Your task to perform on an android device: turn on sleep mode Image 0: 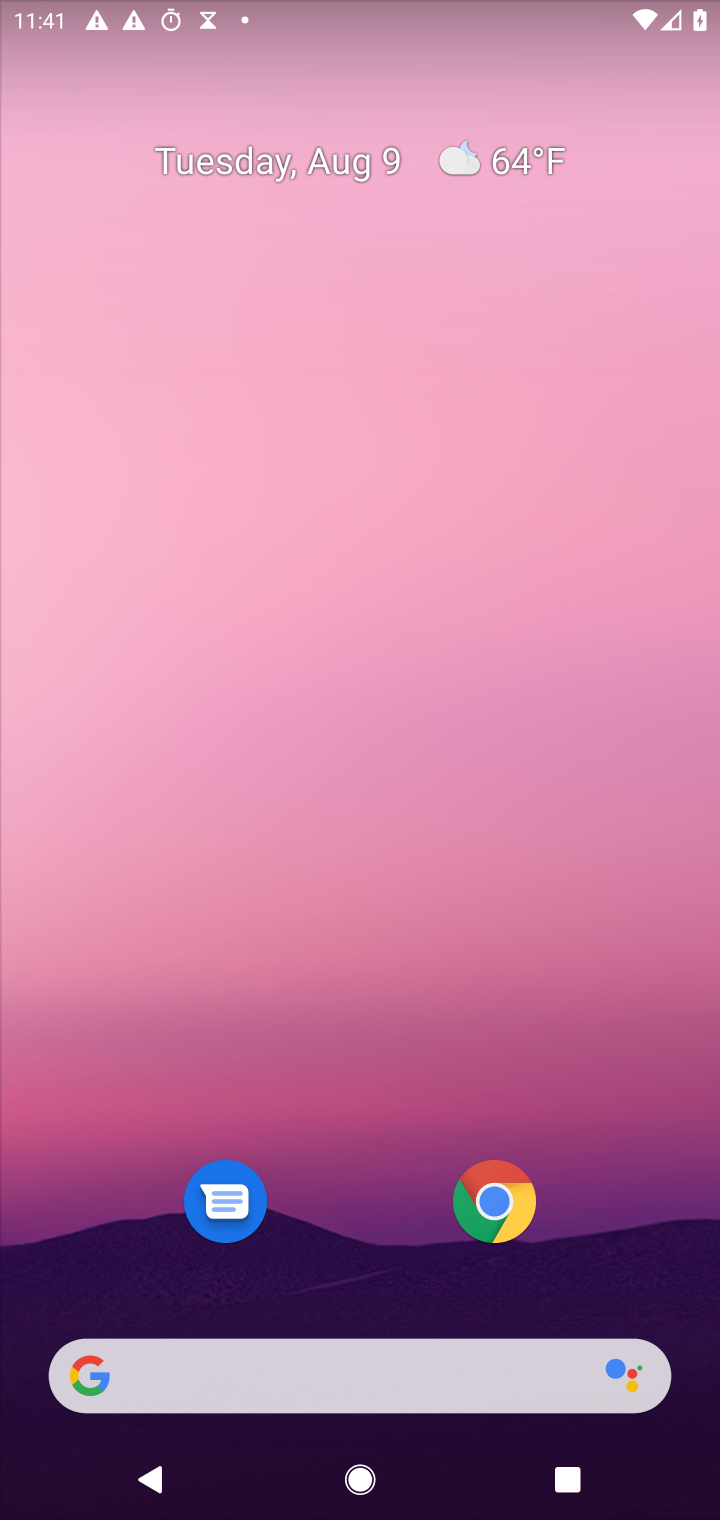
Step 0: press home button
Your task to perform on an android device: turn on sleep mode Image 1: 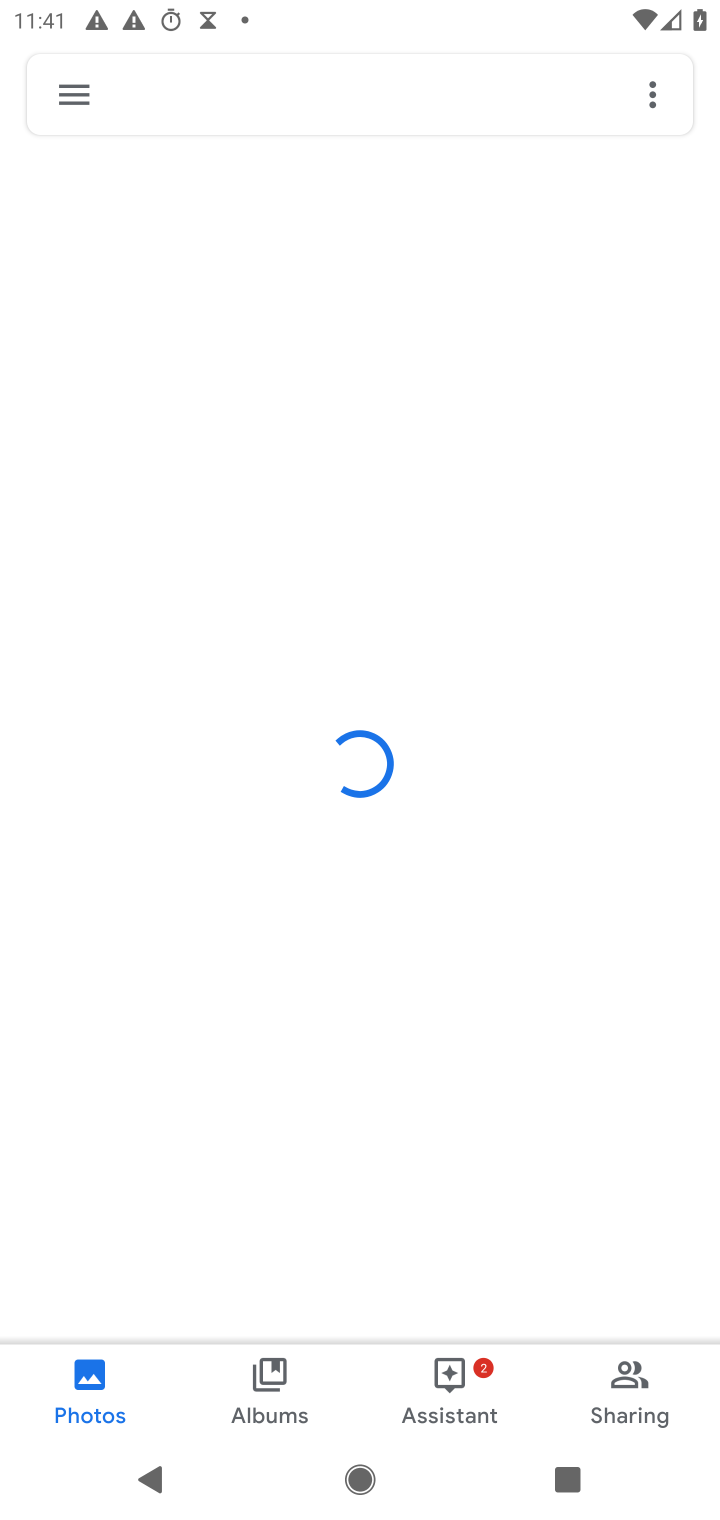
Step 1: click (419, 182)
Your task to perform on an android device: turn on sleep mode Image 2: 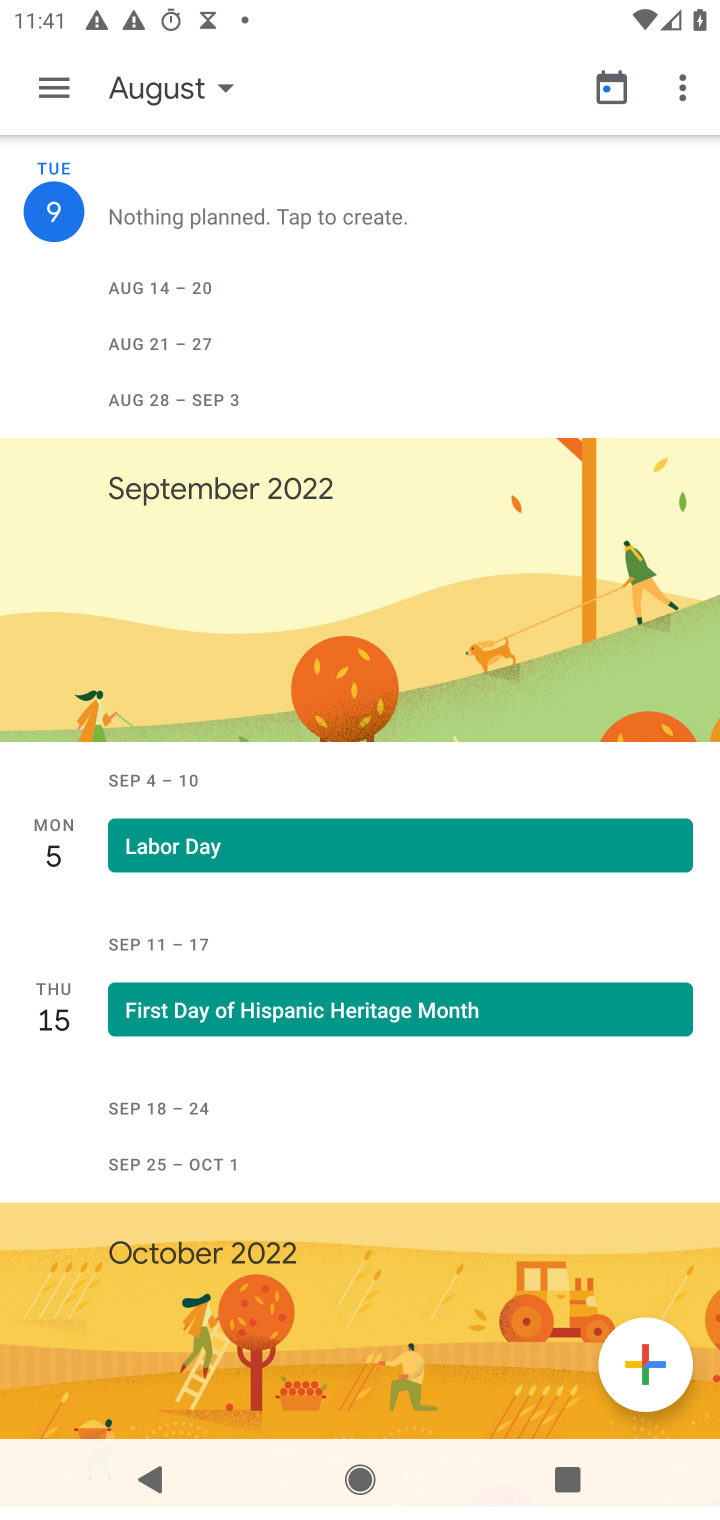
Step 2: press home button
Your task to perform on an android device: turn on sleep mode Image 3: 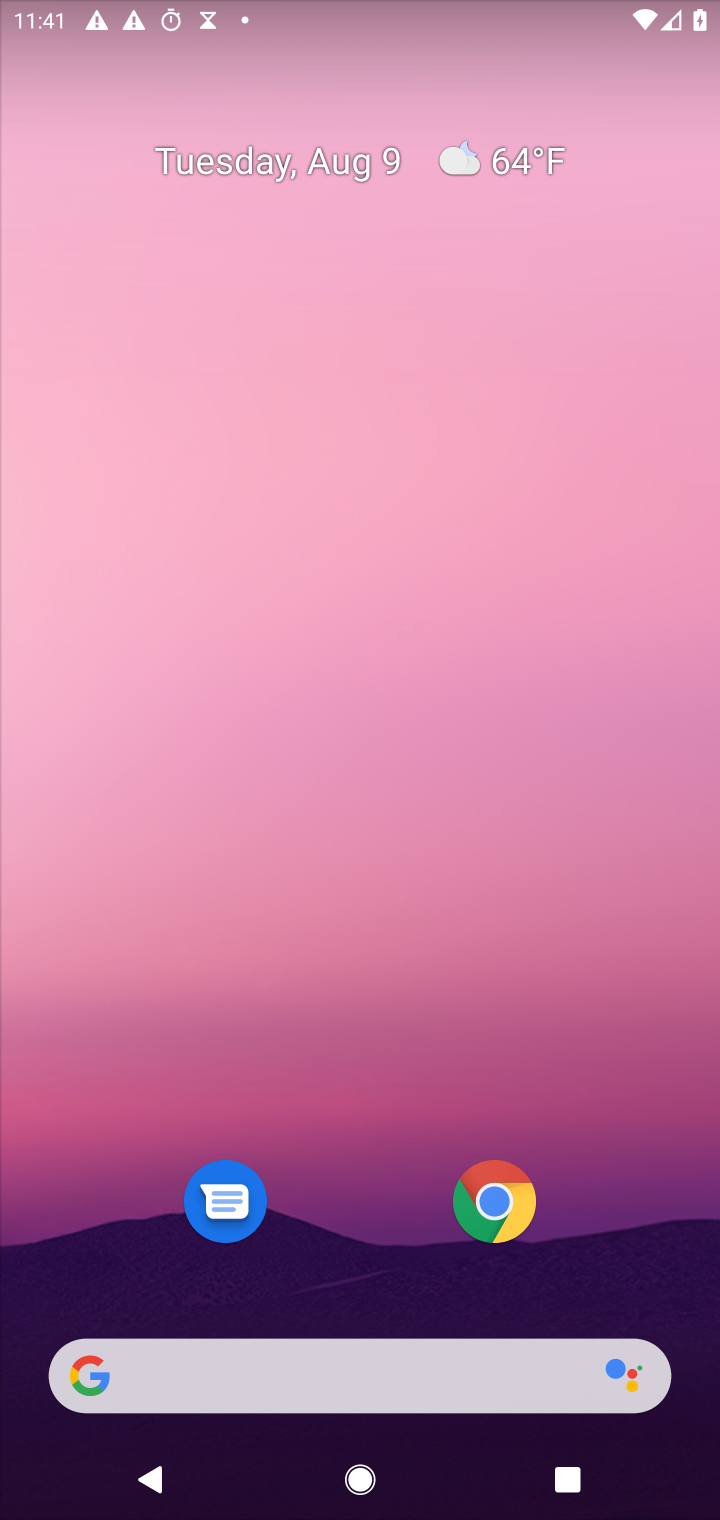
Step 3: drag from (356, 1255) to (474, 226)
Your task to perform on an android device: turn on sleep mode Image 4: 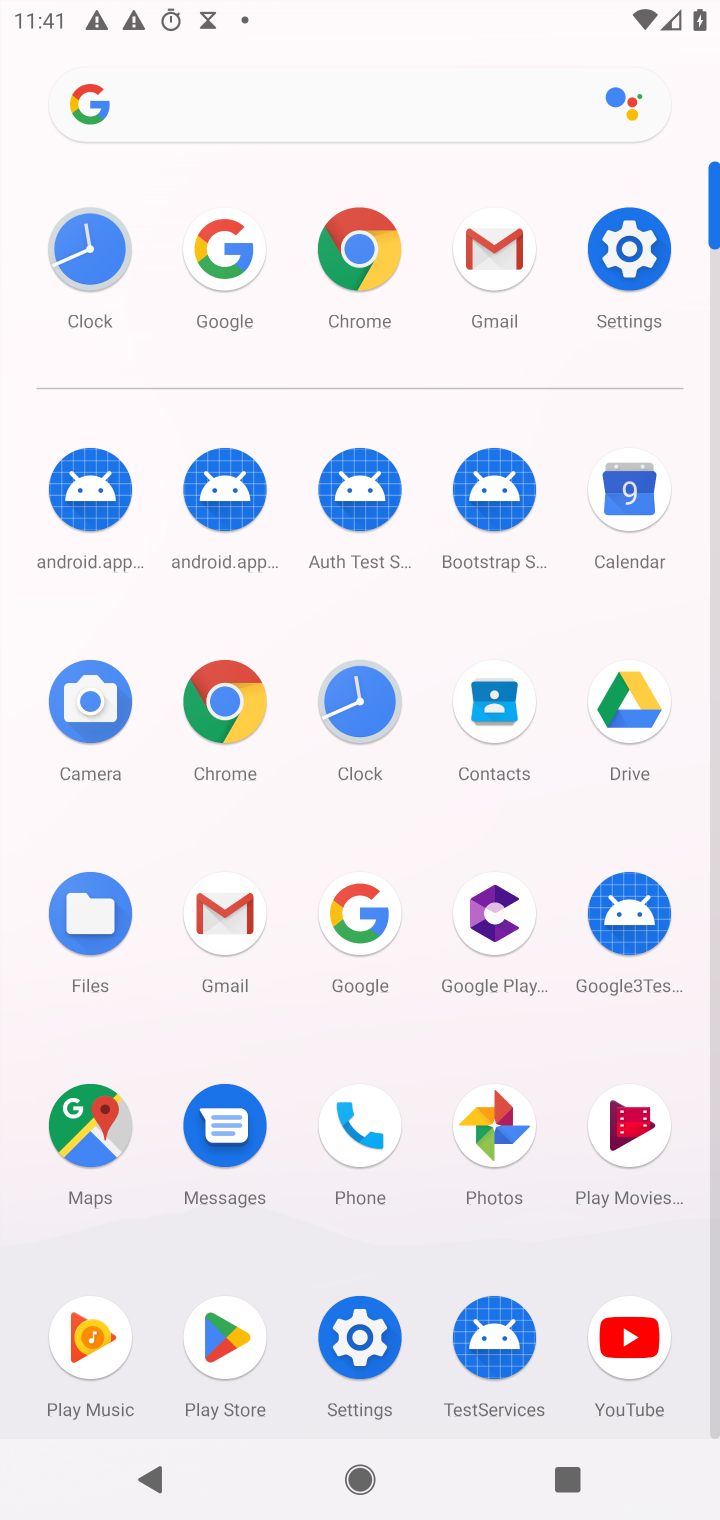
Step 4: click (606, 267)
Your task to perform on an android device: turn on sleep mode Image 5: 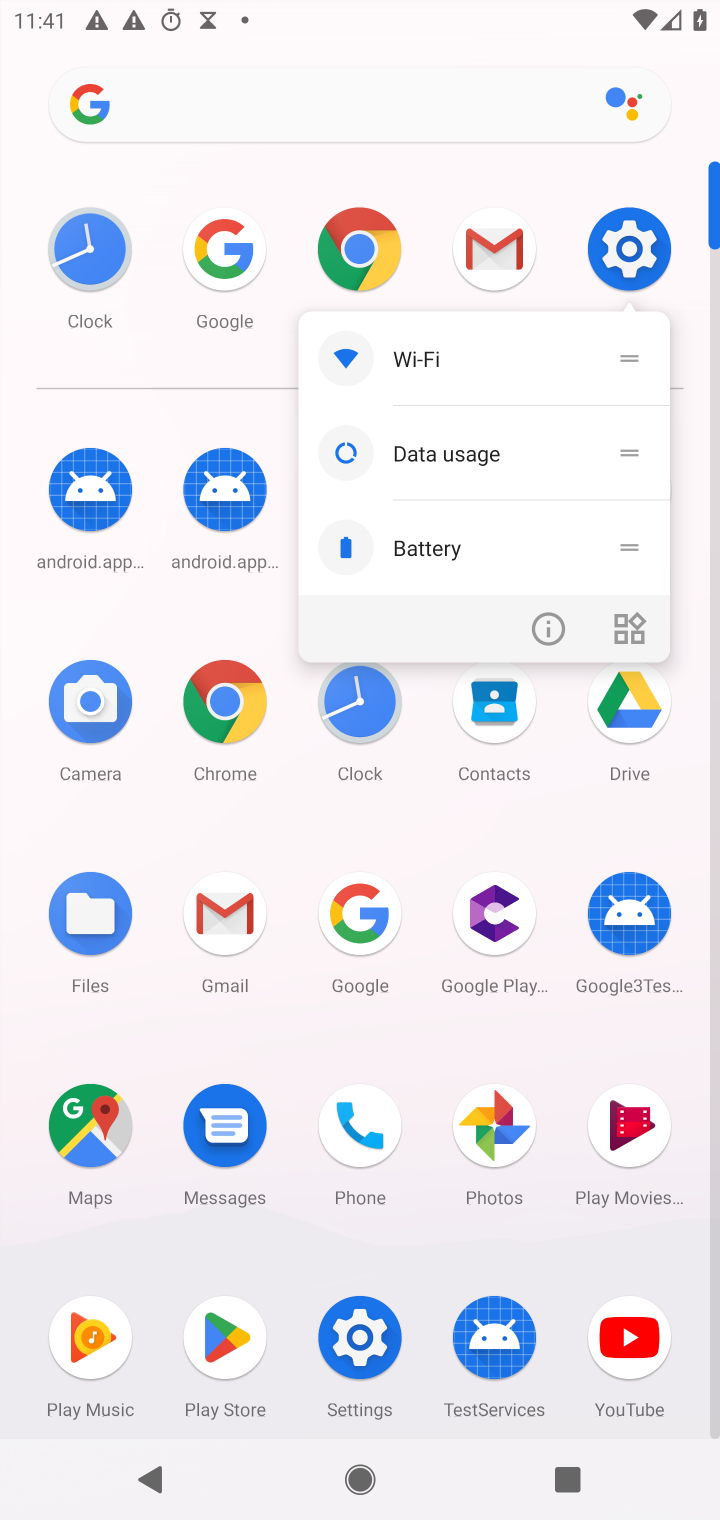
Step 5: click (625, 248)
Your task to perform on an android device: turn on sleep mode Image 6: 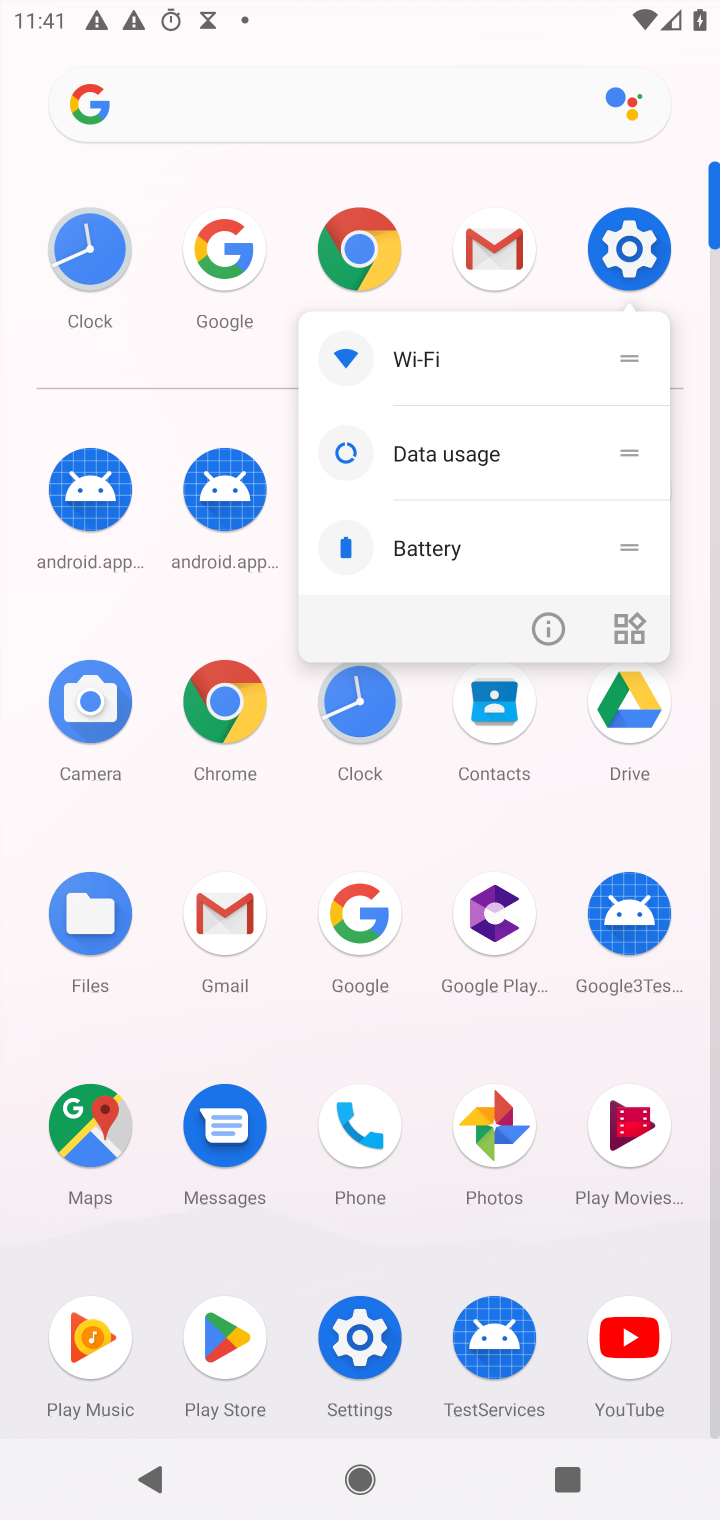
Step 6: click (627, 272)
Your task to perform on an android device: turn on sleep mode Image 7: 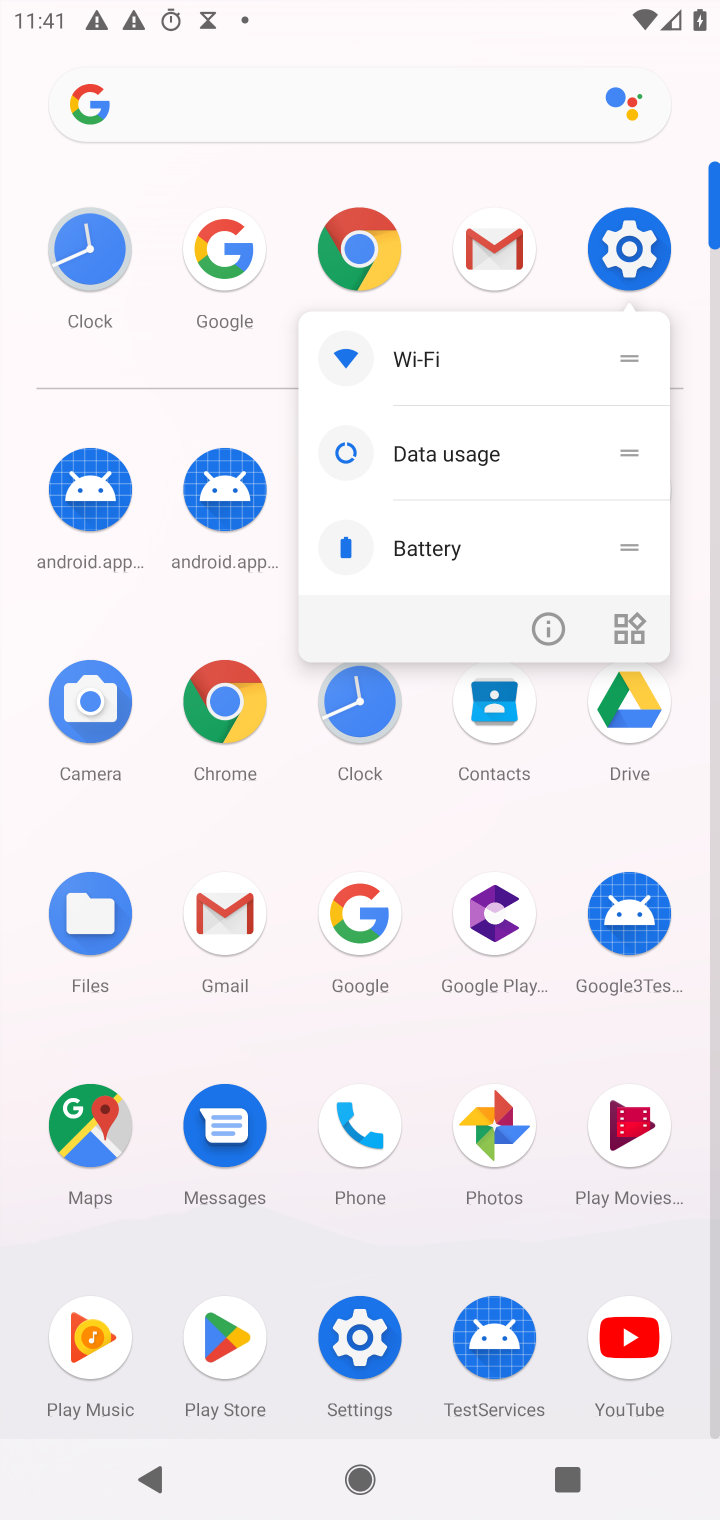
Step 7: click (614, 247)
Your task to perform on an android device: turn on sleep mode Image 8: 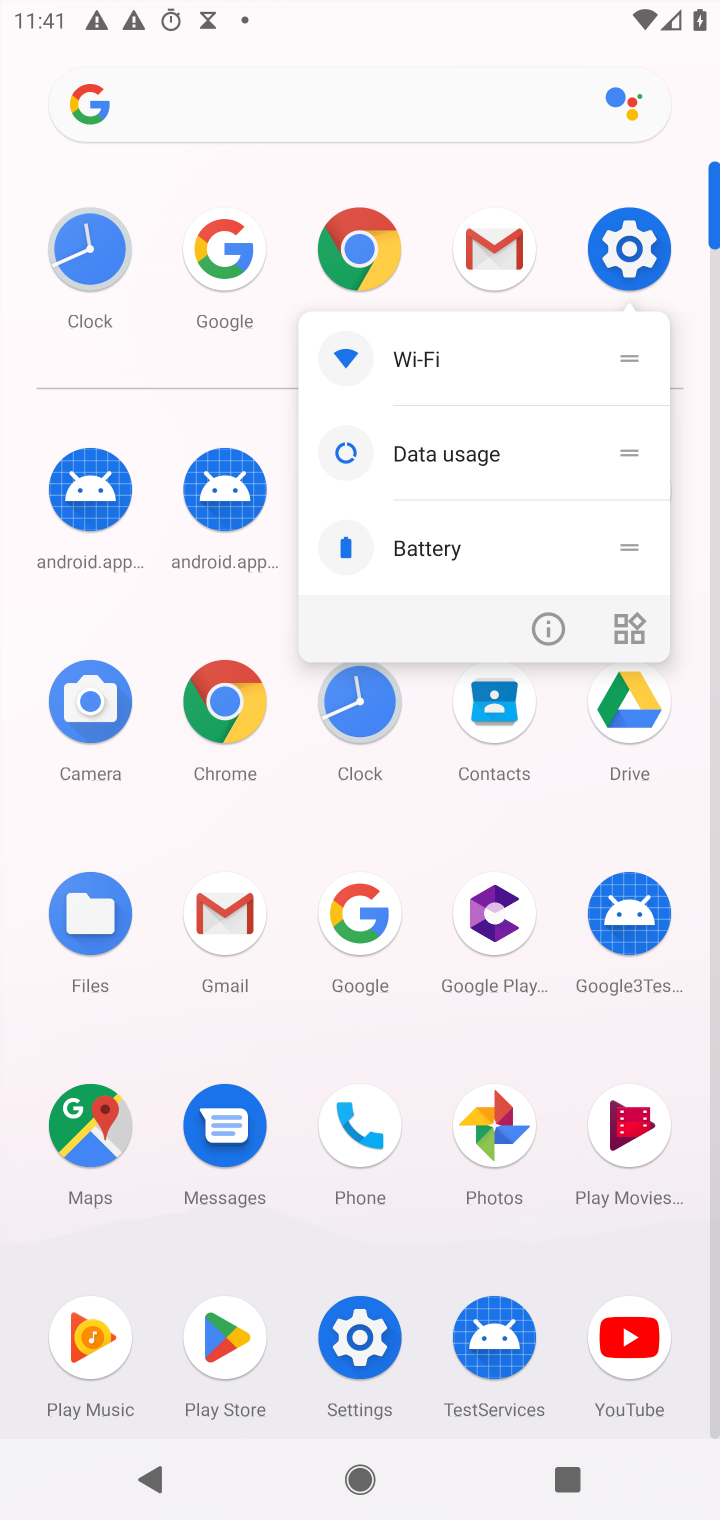
Step 8: click (647, 262)
Your task to perform on an android device: turn on sleep mode Image 9: 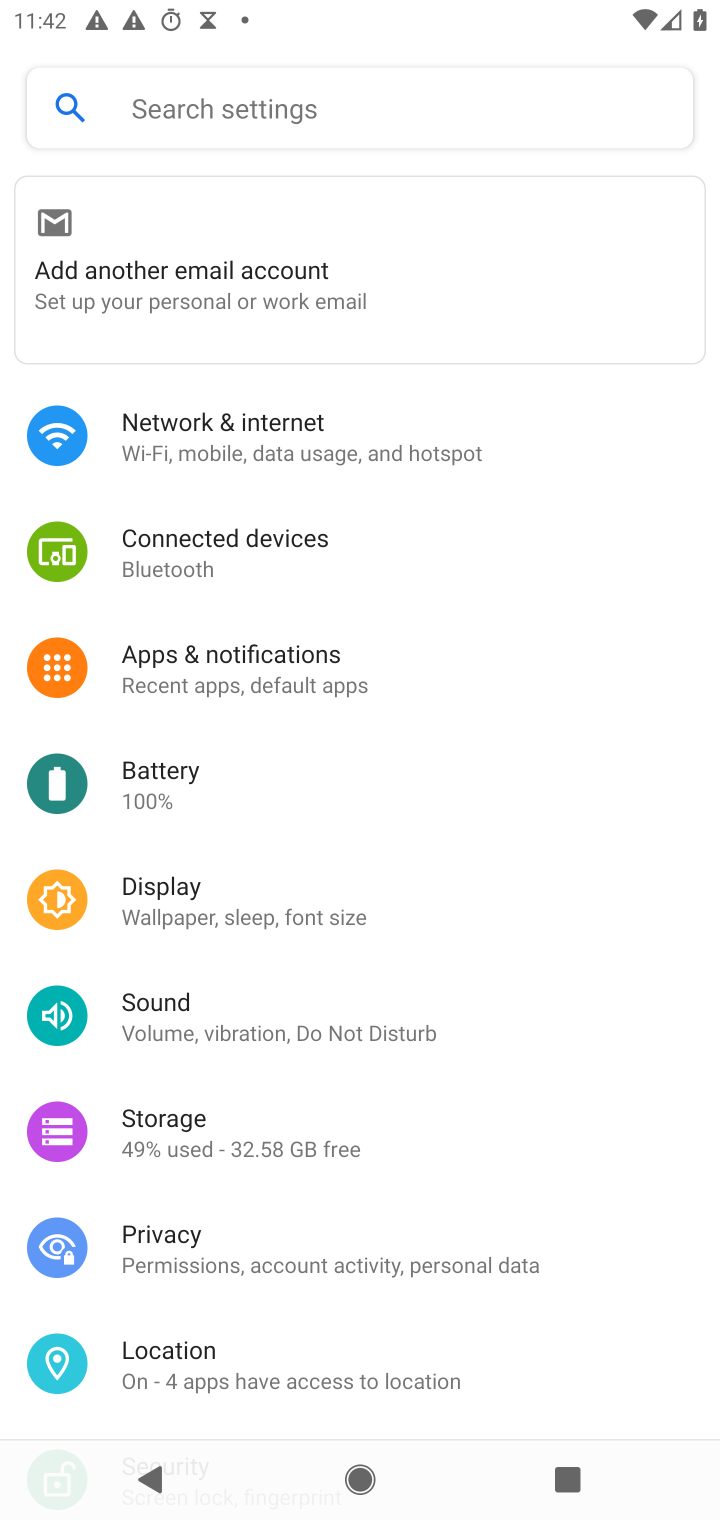
Step 9: click (158, 913)
Your task to perform on an android device: turn on sleep mode Image 10: 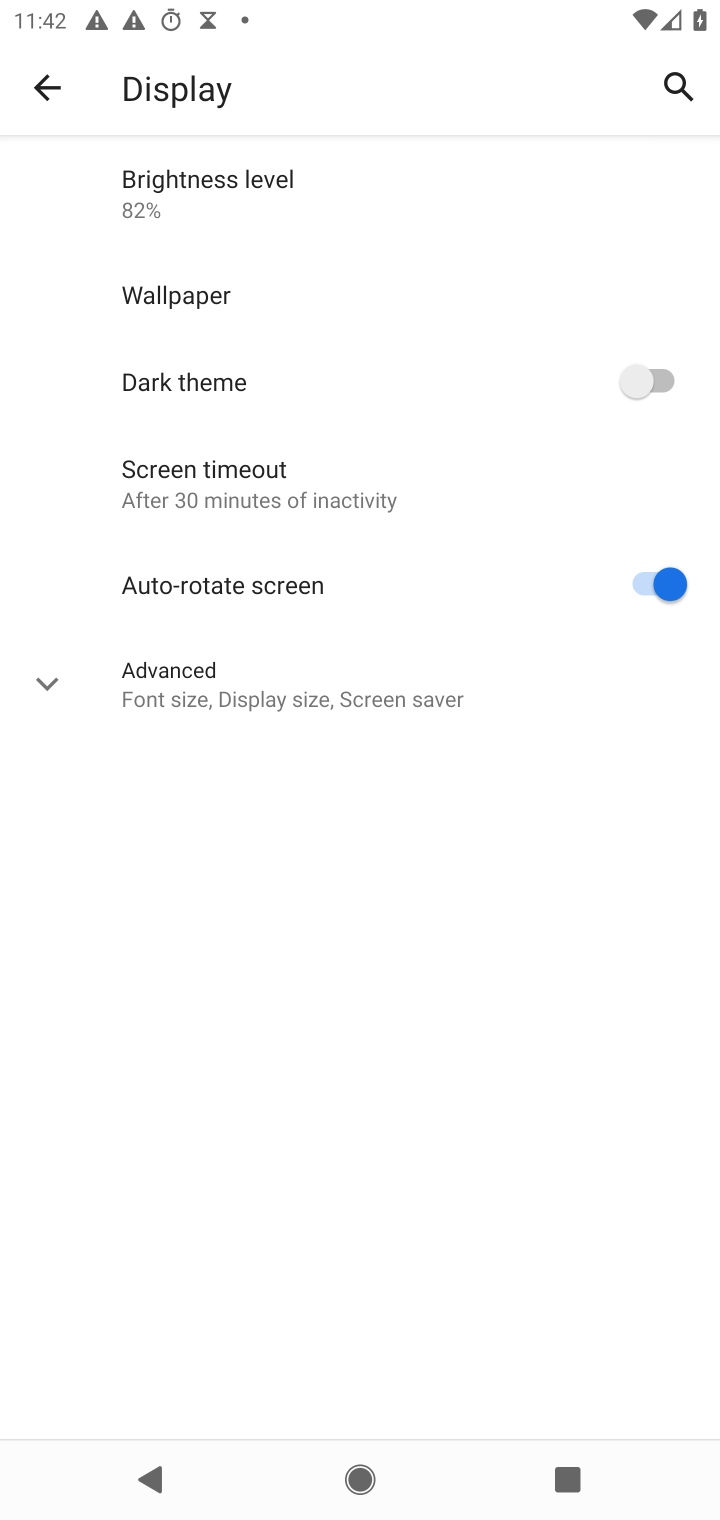
Step 10: click (45, 688)
Your task to perform on an android device: turn on sleep mode Image 11: 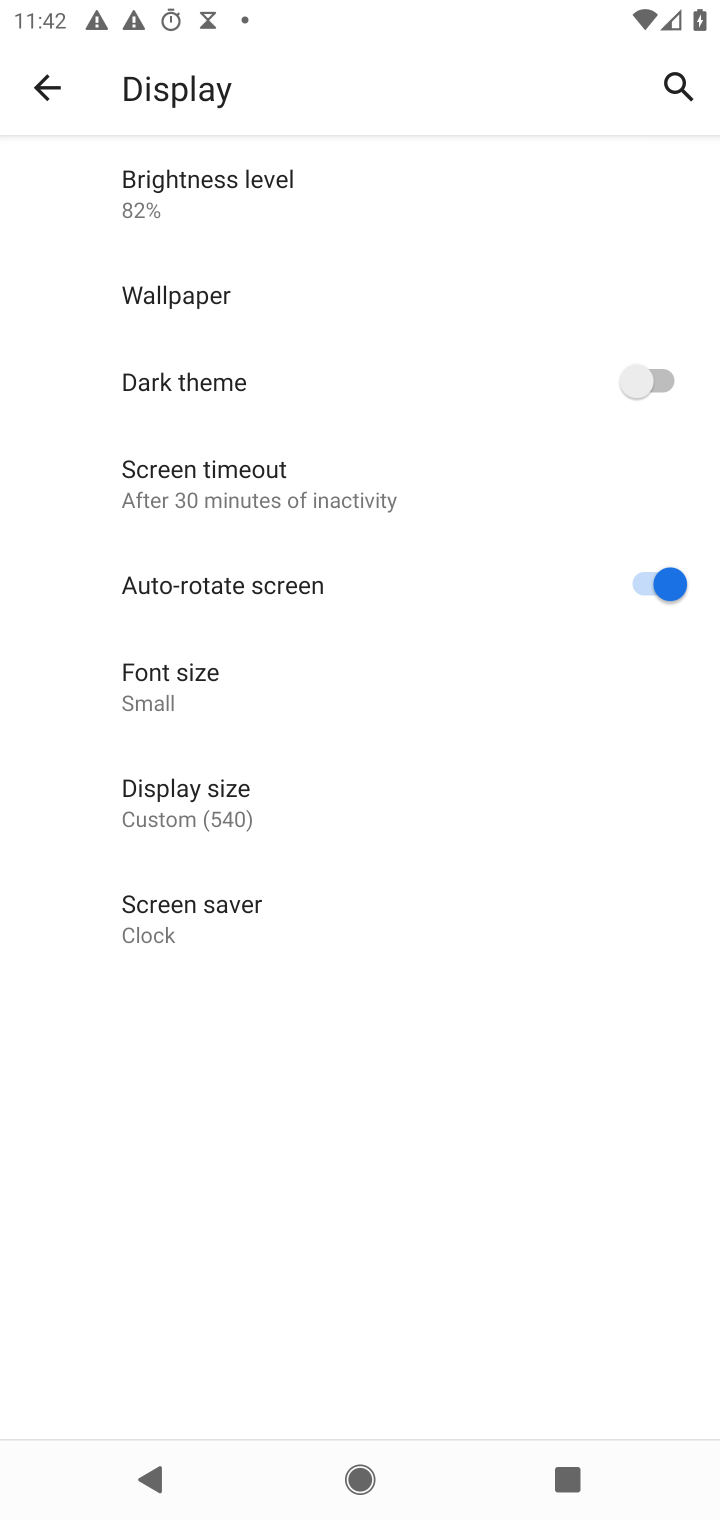
Step 11: task complete